Your task to perform on an android device: Go to internet settings Image 0: 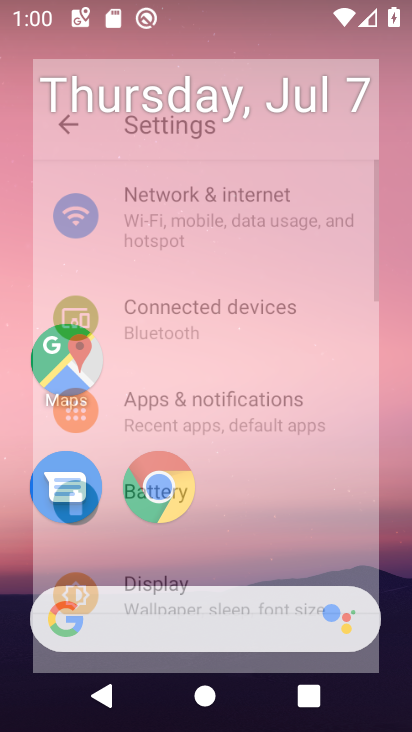
Step 0: drag from (331, 546) to (326, 210)
Your task to perform on an android device: Go to internet settings Image 1: 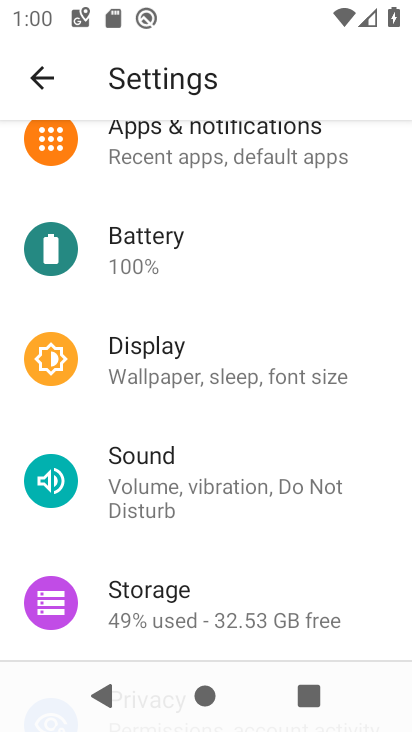
Step 1: press home button
Your task to perform on an android device: Go to internet settings Image 2: 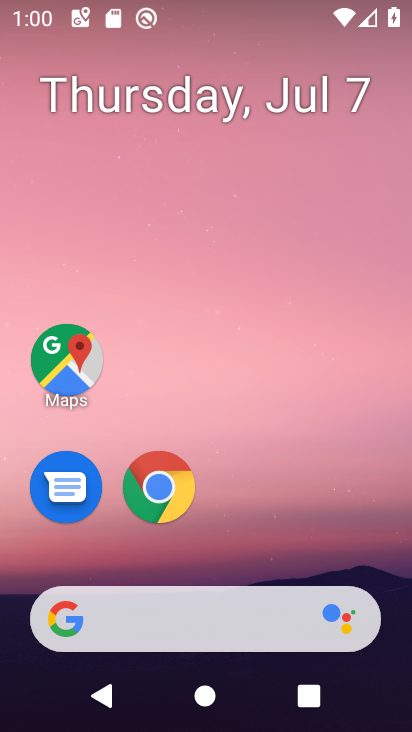
Step 2: drag from (312, 546) to (308, 53)
Your task to perform on an android device: Go to internet settings Image 3: 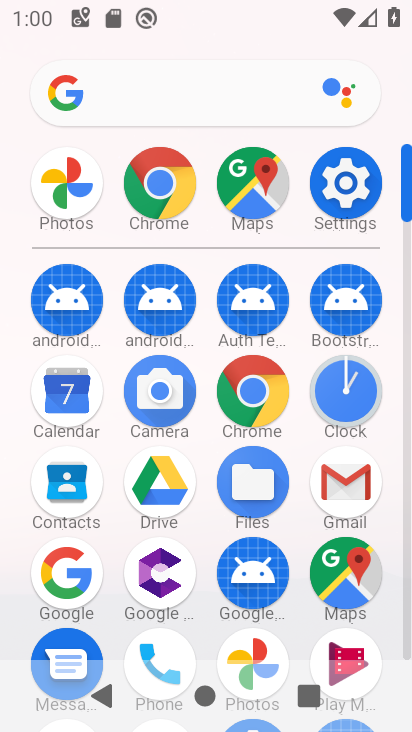
Step 3: click (351, 187)
Your task to perform on an android device: Go to internet settings Image 4: 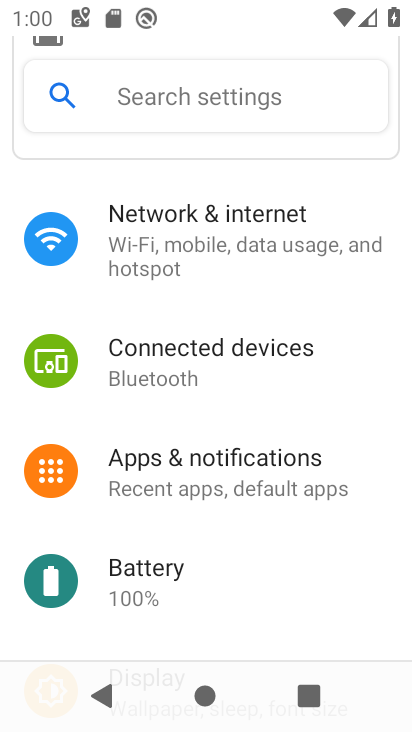
Step 4: drag from (361, 597) to (364, 404)
Your task to perform on an android device: Go to internet settings Image 5: 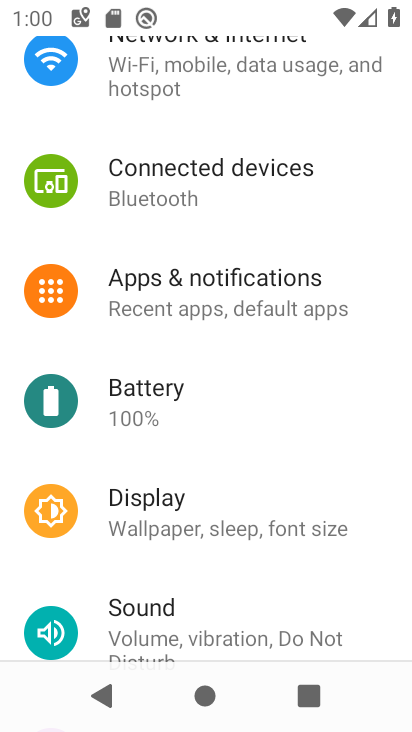
Step 5: drag from (361, 610) to (366, 426)
Your task to perform on an android device: Go to internet settings Image 6: 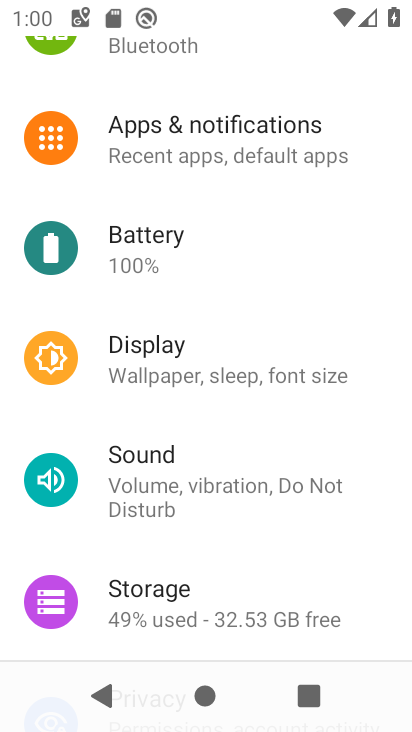
Step 6: drag from (369, 629) to (358, 383)
Your task to perform on an android device: Go to internet settings Image 7: 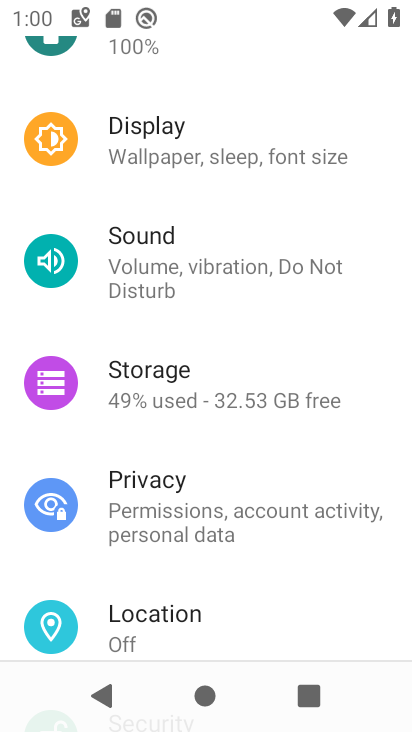
Step 7: drag from (369, 301) to (371, 593)
Your task to perform on an android device: Go to internet settings Image 8: 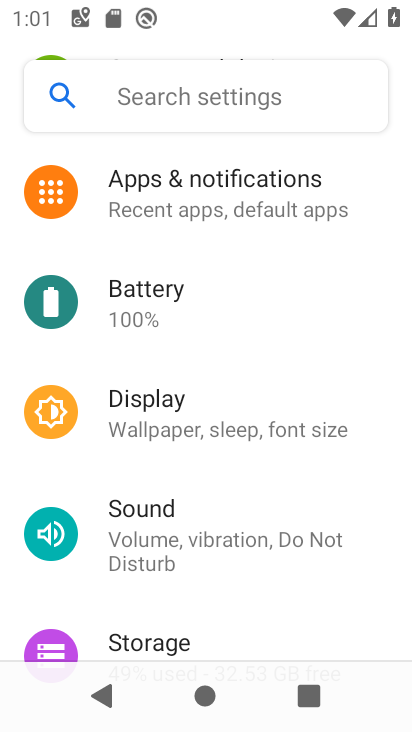
Step 8: drag from (370, 268) to (368, 522)
Your task to perform on an android device: Go to internet settings Image 9: 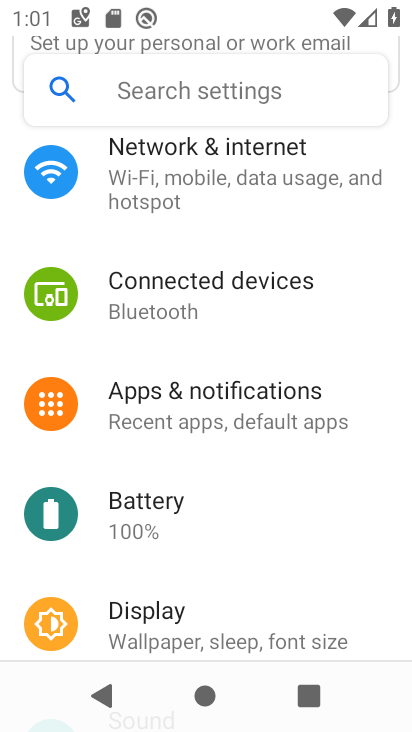
Step 9: drag from (352, 252) to (363, 521)
Your task to perform on an android device: Go to internet settings Image 10: 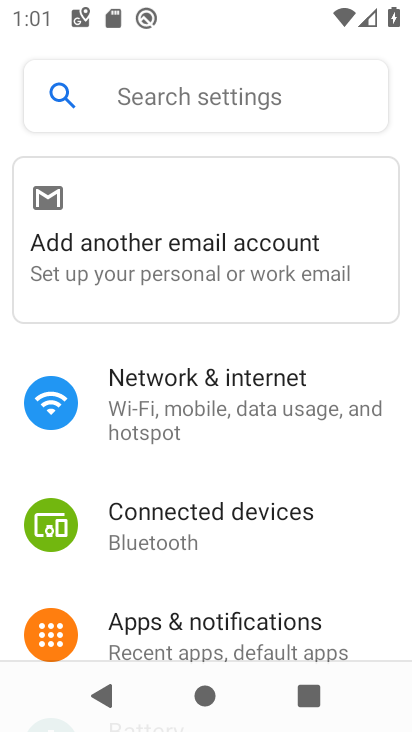
Step 10: drag from (357, 624) to (350, 464)
Your task to perform on an android device: Go to internet settings Image 11: 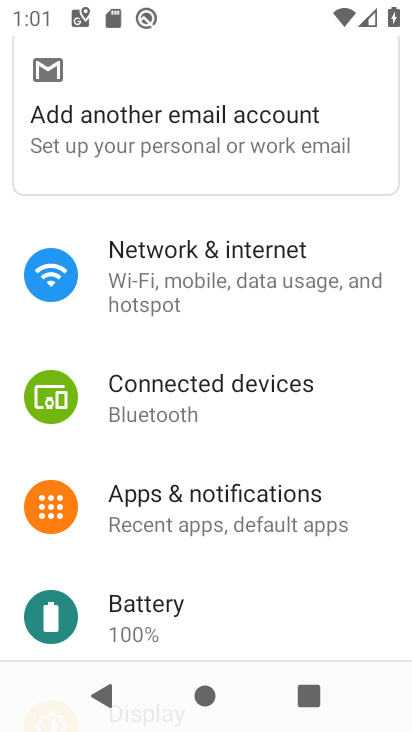
Step 11: drag from (343, 612) to (358, 373)
Your task to perform on an android device: Go to internet settings Image 12: 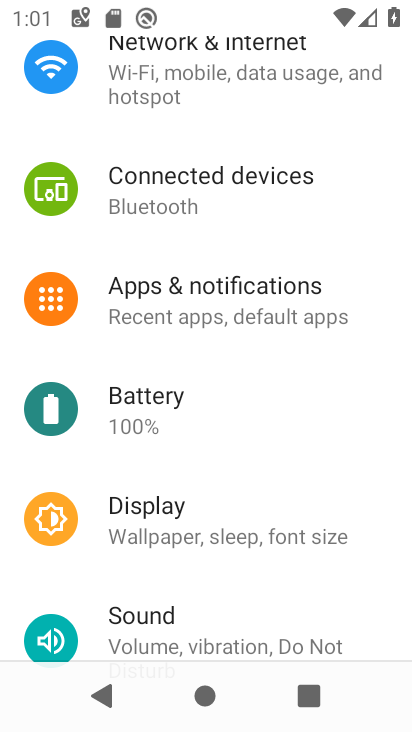
Step 12: drag from (360, 587) to (363, 343)
Your task to perform on an android device: Go to internet settings Image 13: 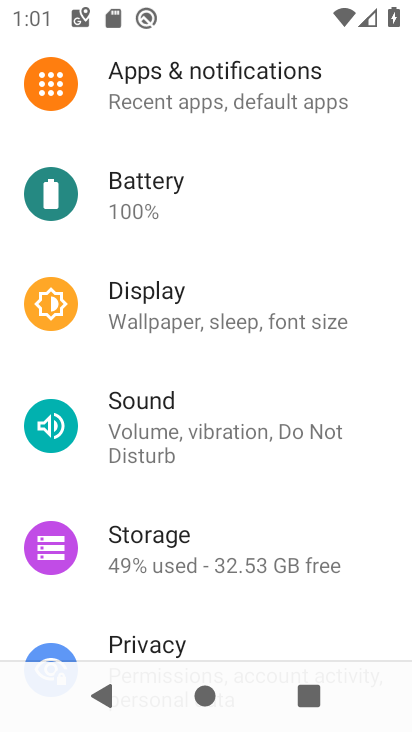
Step 13: drag from (359, 218) to (376, 423)
Your task to perform on an android device: Go to internet settings Image 14: 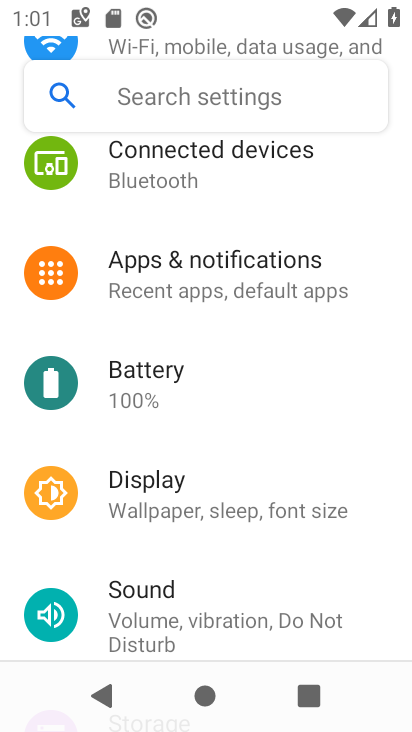
Step 14: drag from (348, 218) to (361, 487)
Your task to perform on an android device: Go to internet settings Image 15: 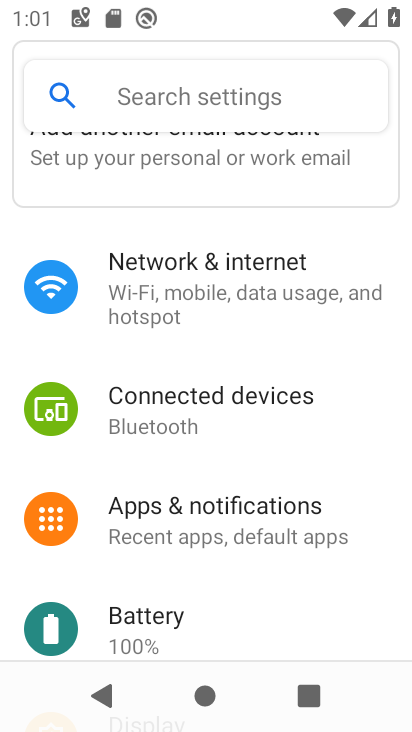
Step 15: click (253, 298)
Your task to perform on an android device: Go to internet settings Image 16: 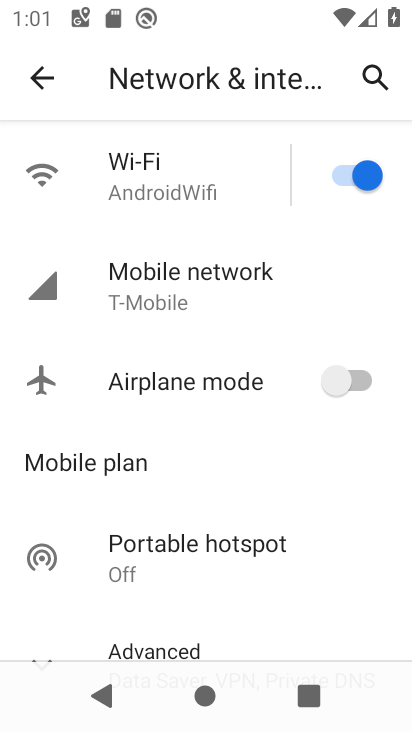
Step 16: task complete